Your task to perform on an android device: check out phone information Image 0: 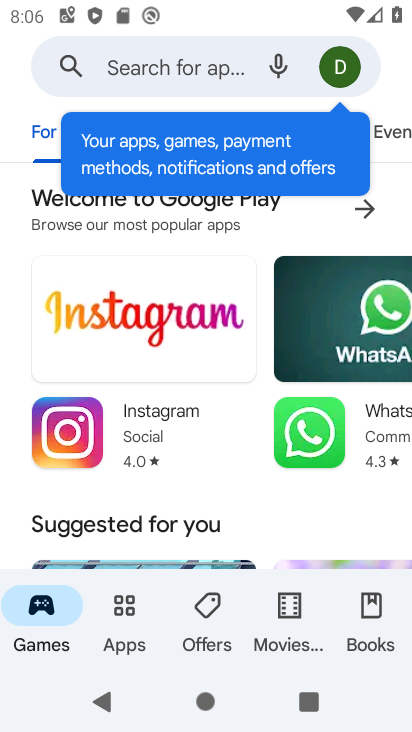
Step 0: press home button
Your task to perform on an android device: check out phone information Image 1: 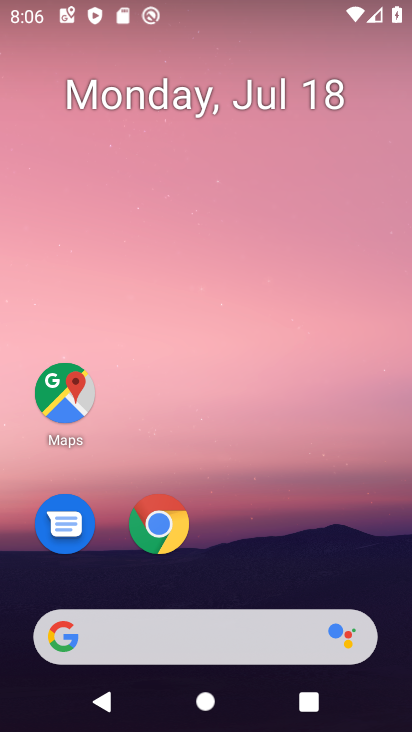
Step 1: drag from (271, 515) to (300, 5)
Your task to perform on an android device: check out phone information Image 2: 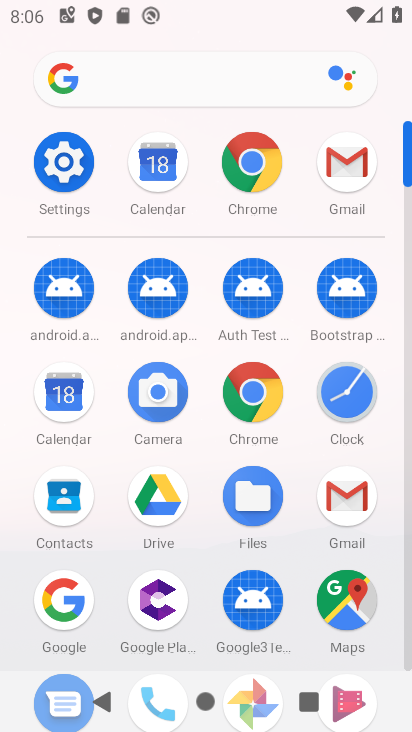
Step 2: drag from (194, 489) to (209, 232)
Your task to perform on an android device: check out phone information Image 3: 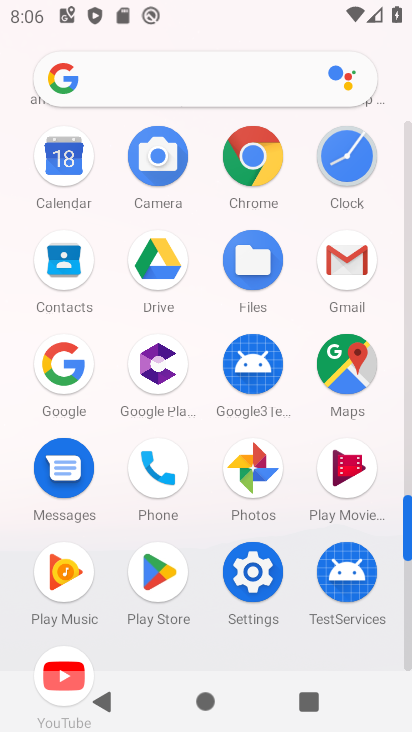
Step 3: click (168, 464)
Your task to perform on an android device: check out phone information Image 4: 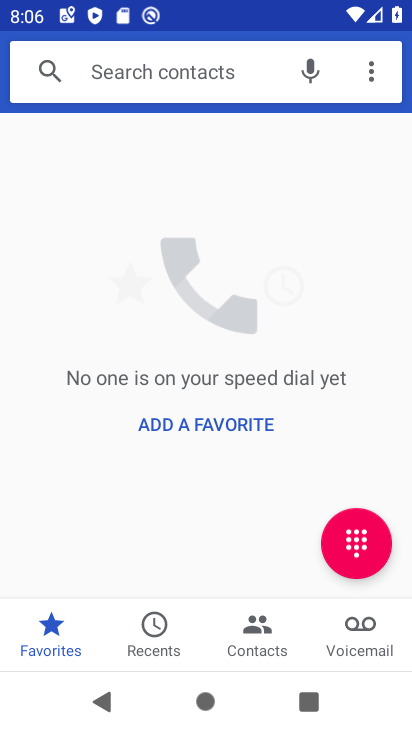
Step 4: task complete